Your task to perform on an android device: turn on sleep mode Image 0: 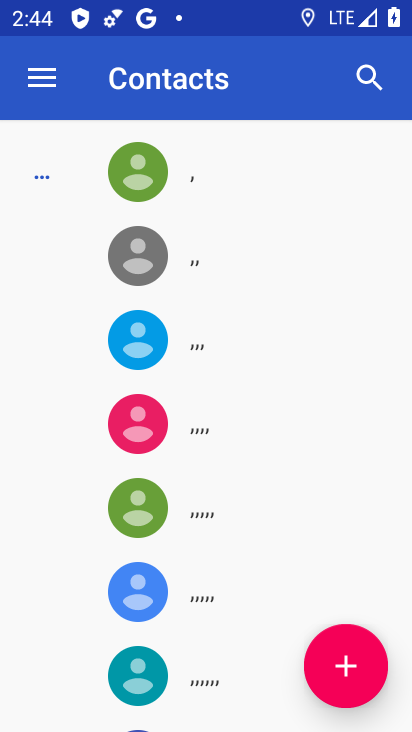
Step 0: press home button
Your task to perform on an android device: turn on sleep mode Image 1: 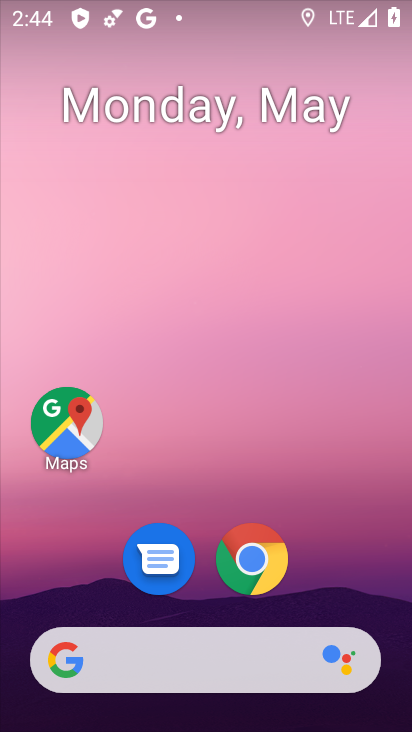
Step 1: drag from (310, 142) to (310, 85)
Your task to perform on an android device: turn on sleep mode Image 2: 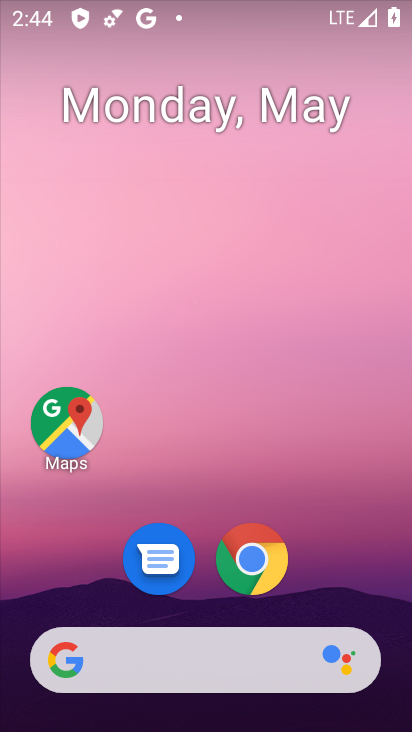
Step 2: drag from (338, 608) to (247, 94)
Your task to perform on an android device: turn on sleep mode Image 3: 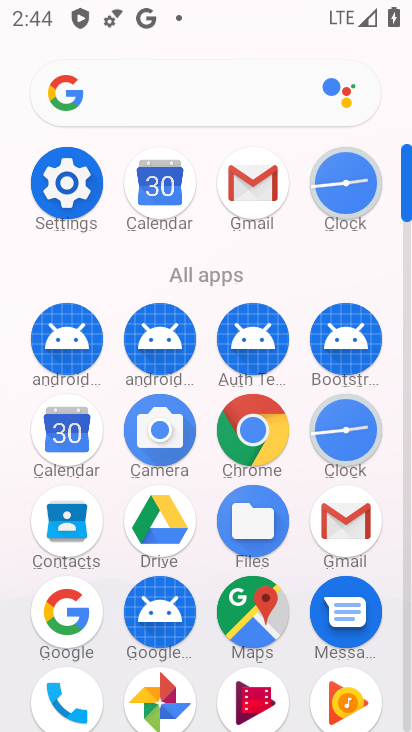
Step 3: click (68, 179)
Your task to perform on an android device: turn on sleep mode Image 4: 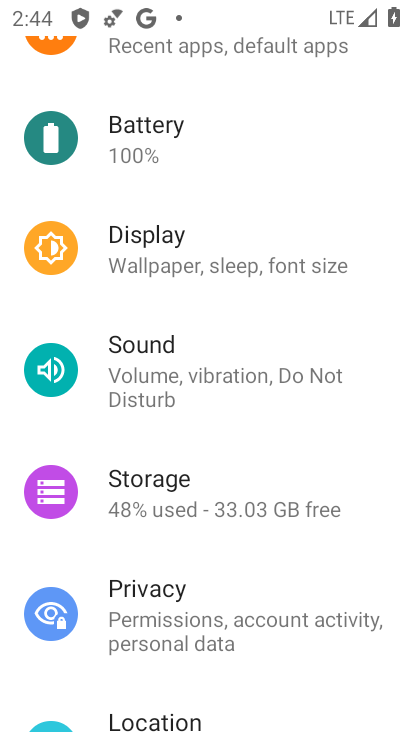
Step 4: click (238, 276)
Your task to perform on an android device: turn on sleep mode Image 5: 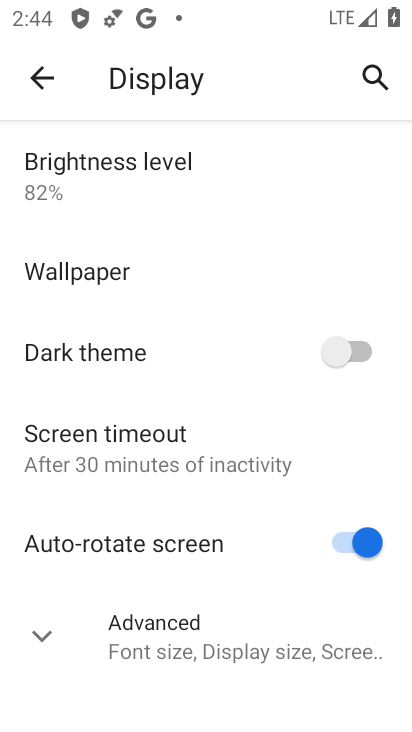
Step 5: click (206, 645)
Your task to perform on an android device: turn on sleep mode Image 6: 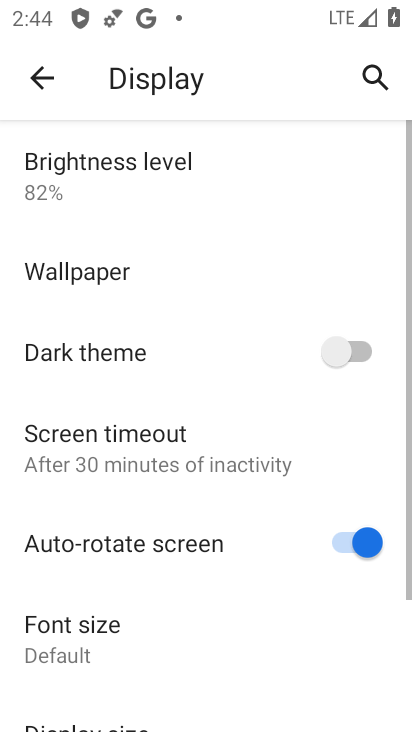
Step 6: task complete